Your task to perform on an android device: add a label to a message in the gmail app Image 0: 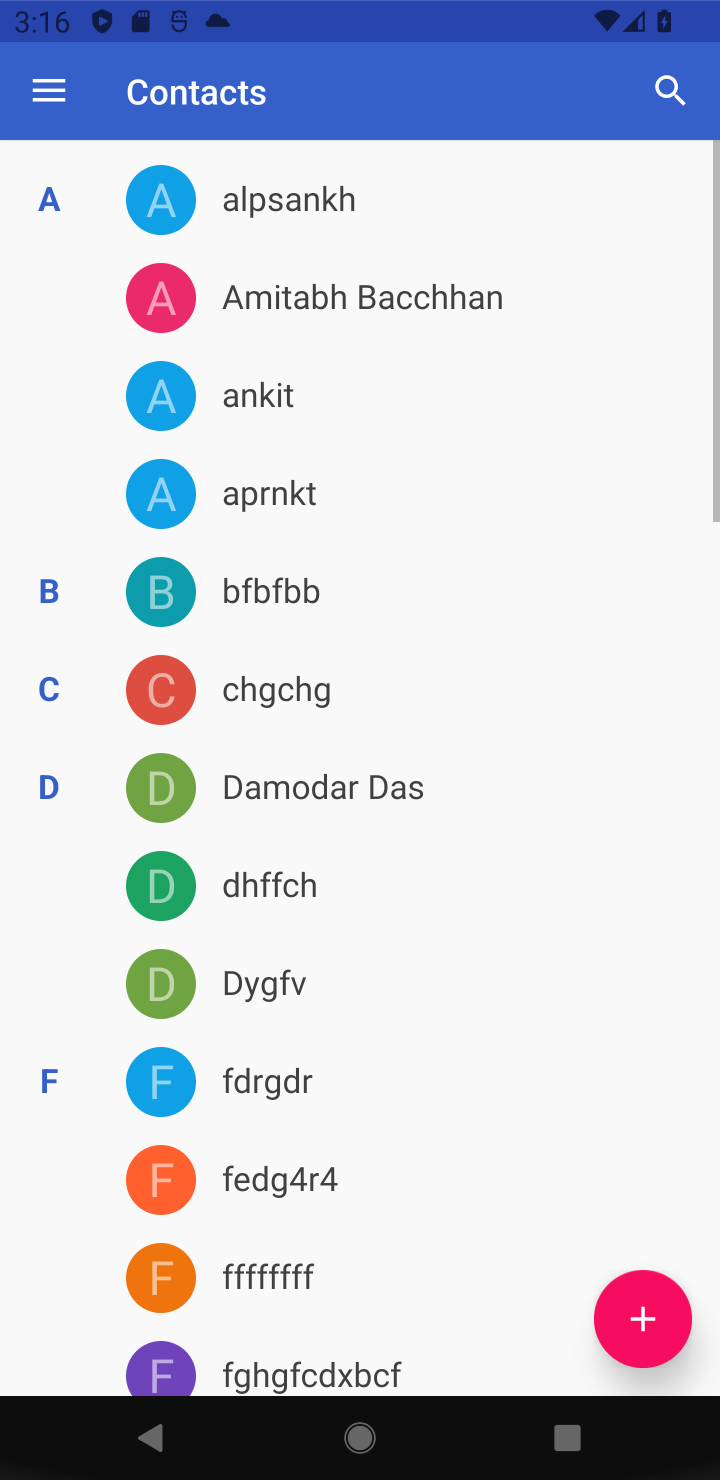
Step 0: press back button
Your task to perform on an android device: add a label to a message in the gmail app Image 1: 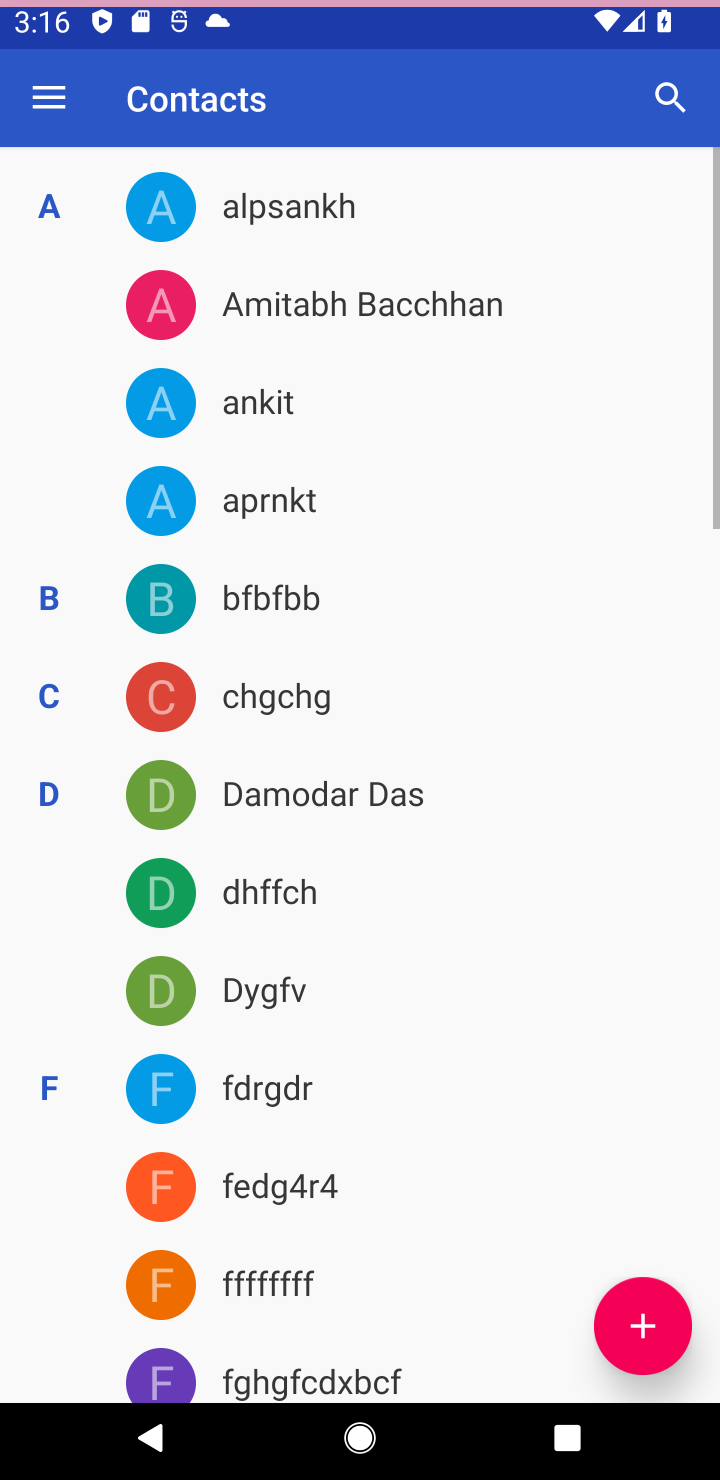
Step 1: press home button
Your task to perform on an android device: add a label to a message in the gmail app Image 2: 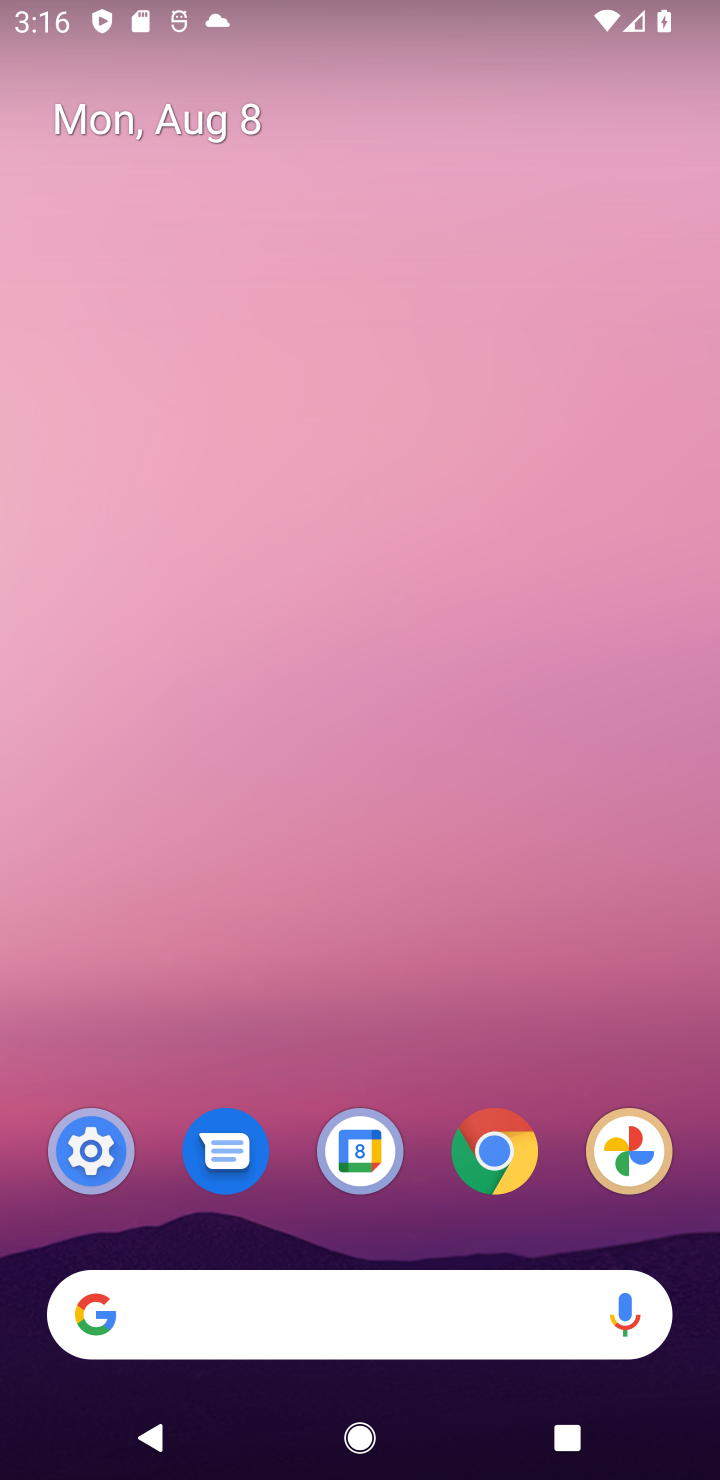
Step 2: drag from (374, 1059) to (374, 248)
Your task to perform on an android device: add a label to a message in the gmail app Image 3: 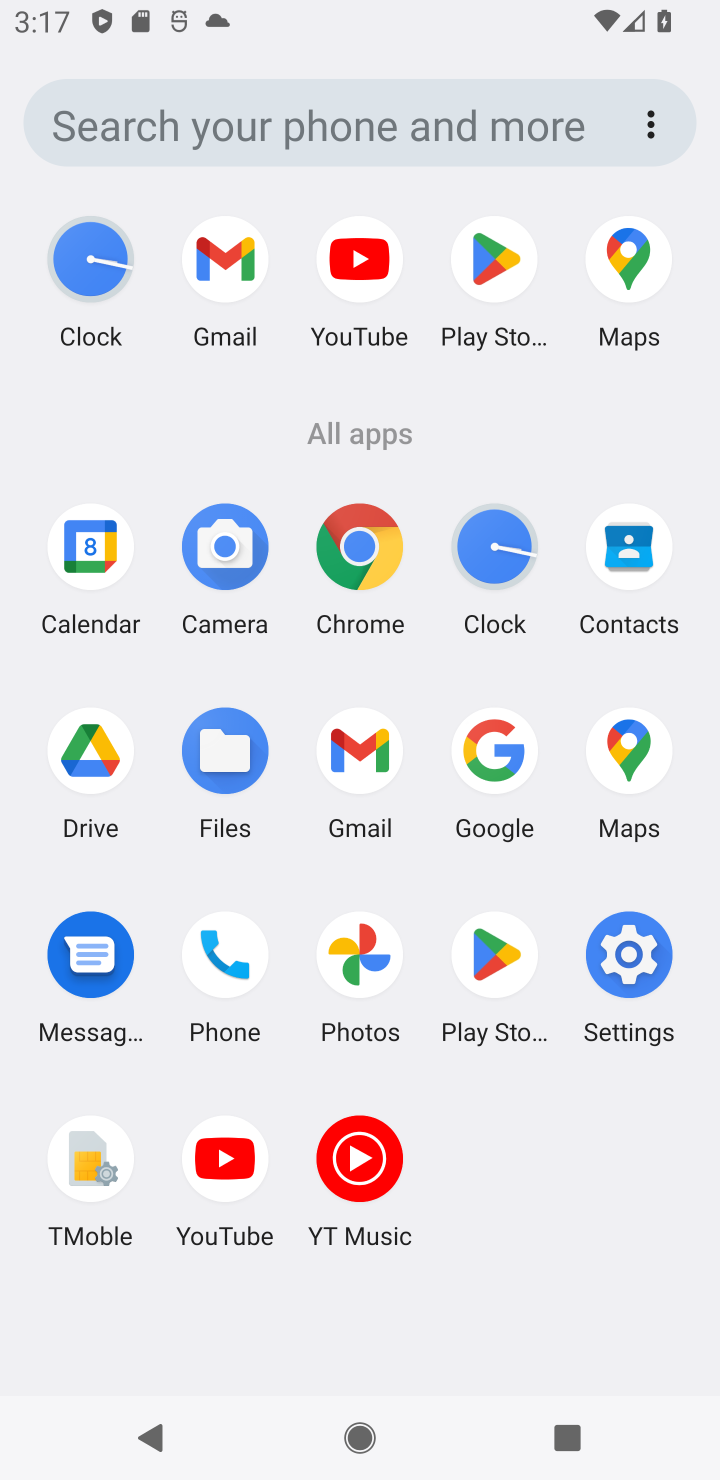
Step 3: click (239, 288)
Your task to perform on an android device: add a label to a message in the gmail app Image 4: 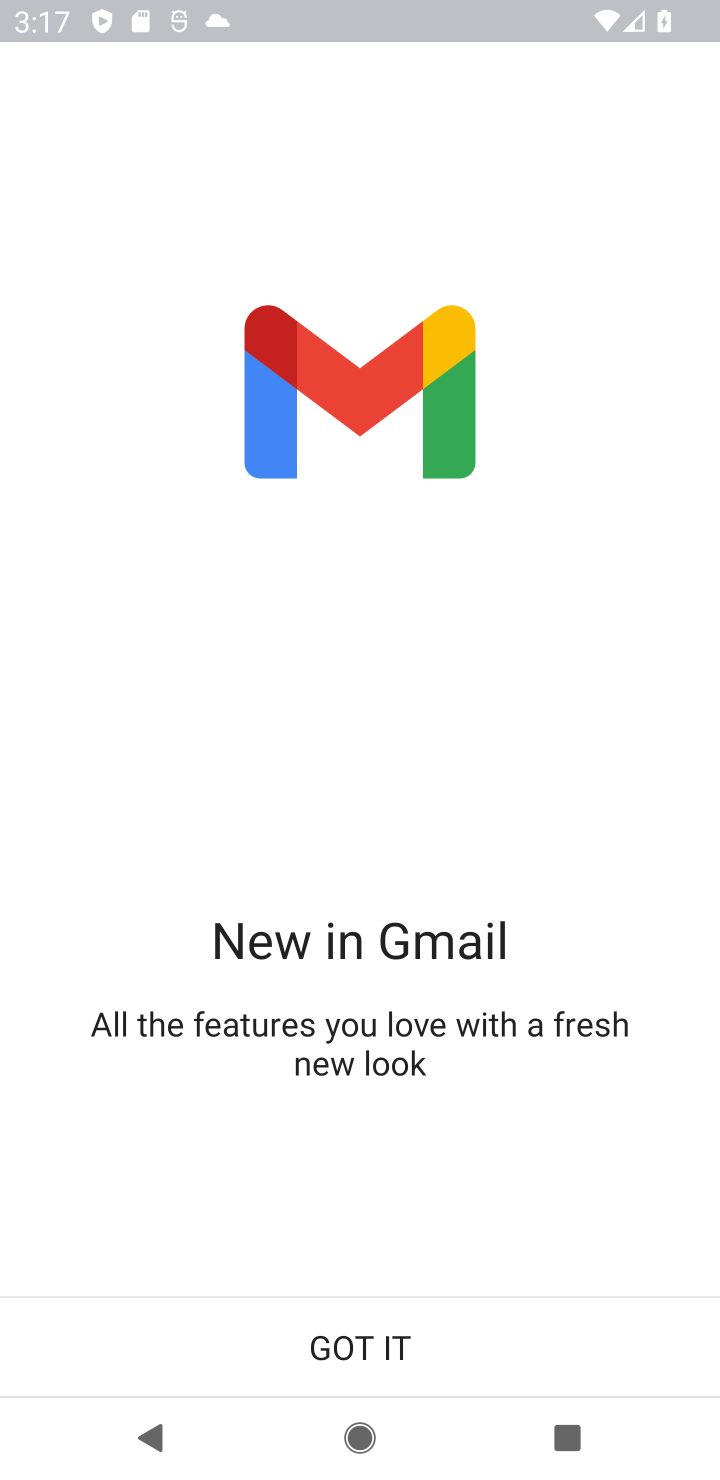
Step 4: click (480, 1322)
Your task to perform on an android device: add a label to a message in the gmail app Image 5: 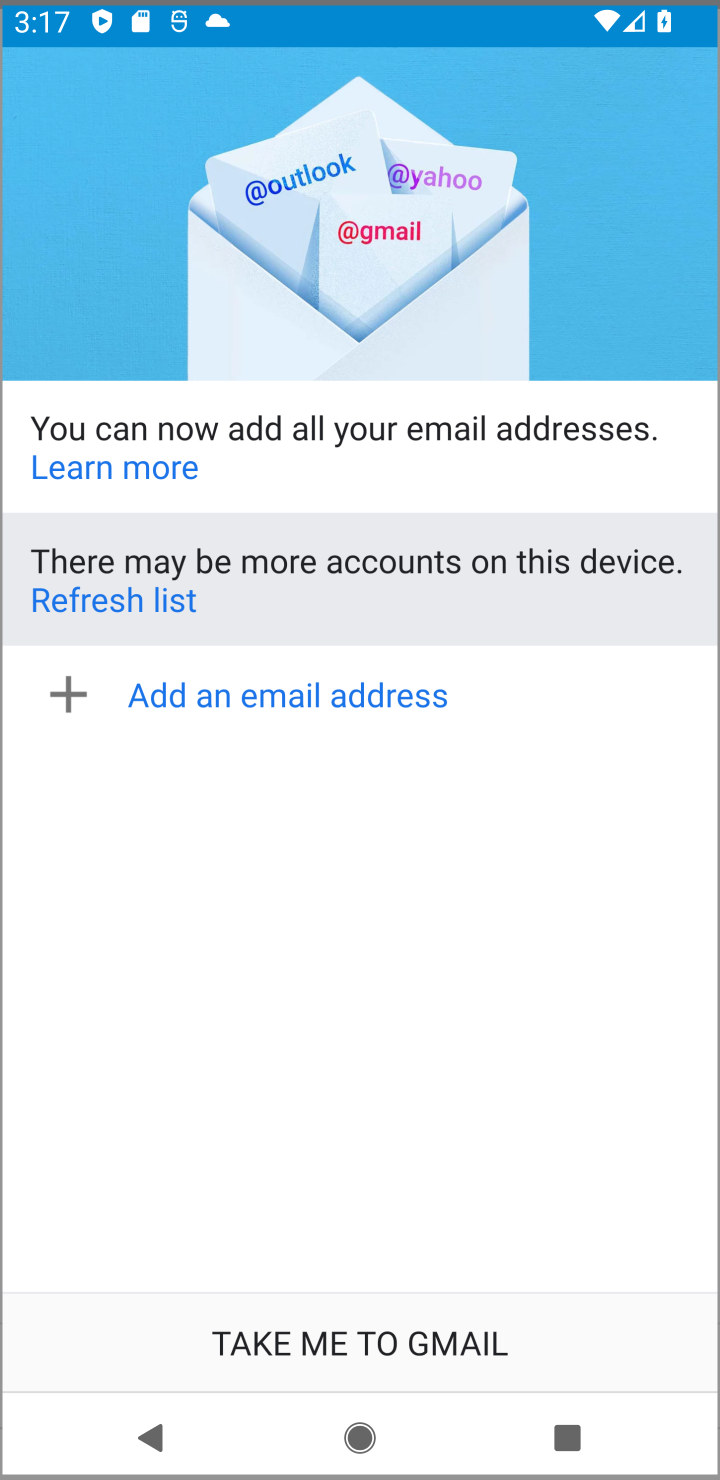
Step 5: click (480, 1322)
Your task to perform on an android device: add a label to a message in the gmail app Image 6: 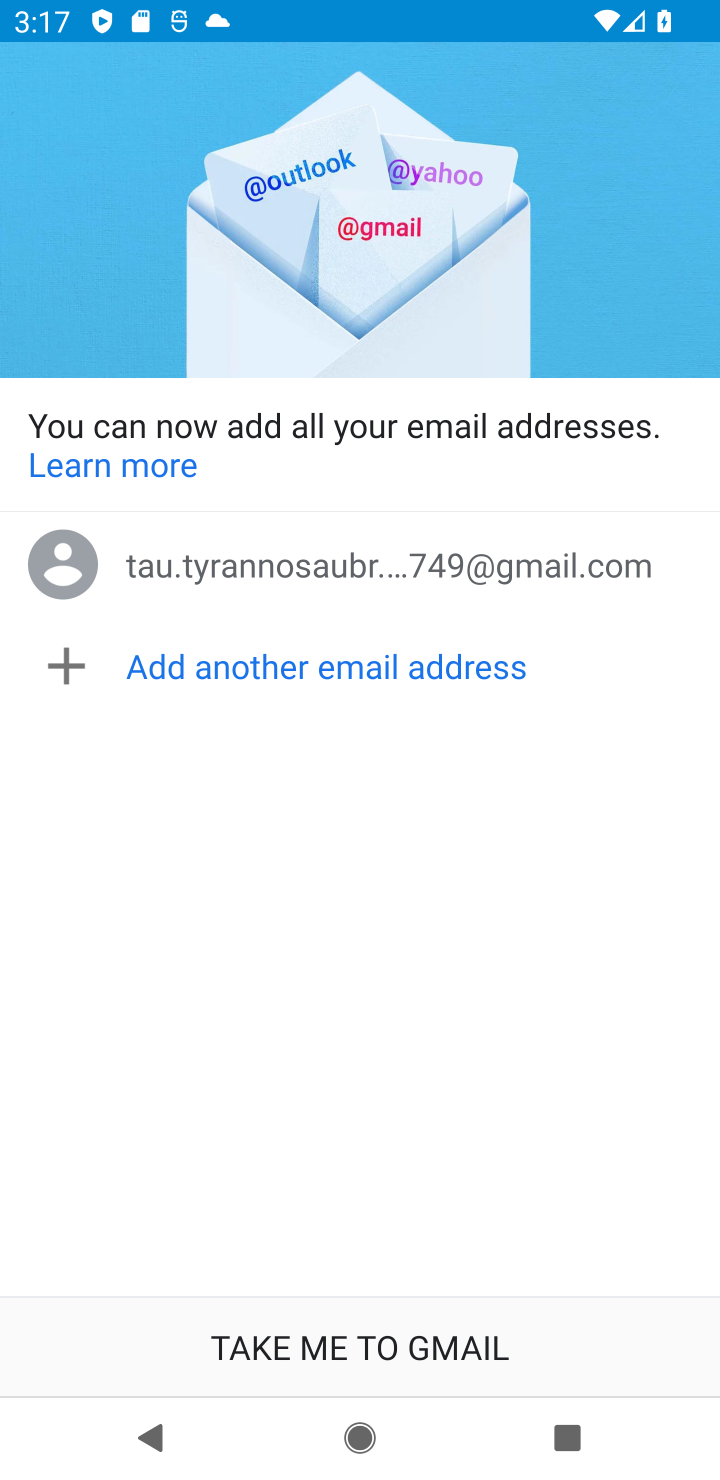
Step 6: click (540, 1322)
Your task to perform on an android device: add a label to a message in the gmail app Image 7: 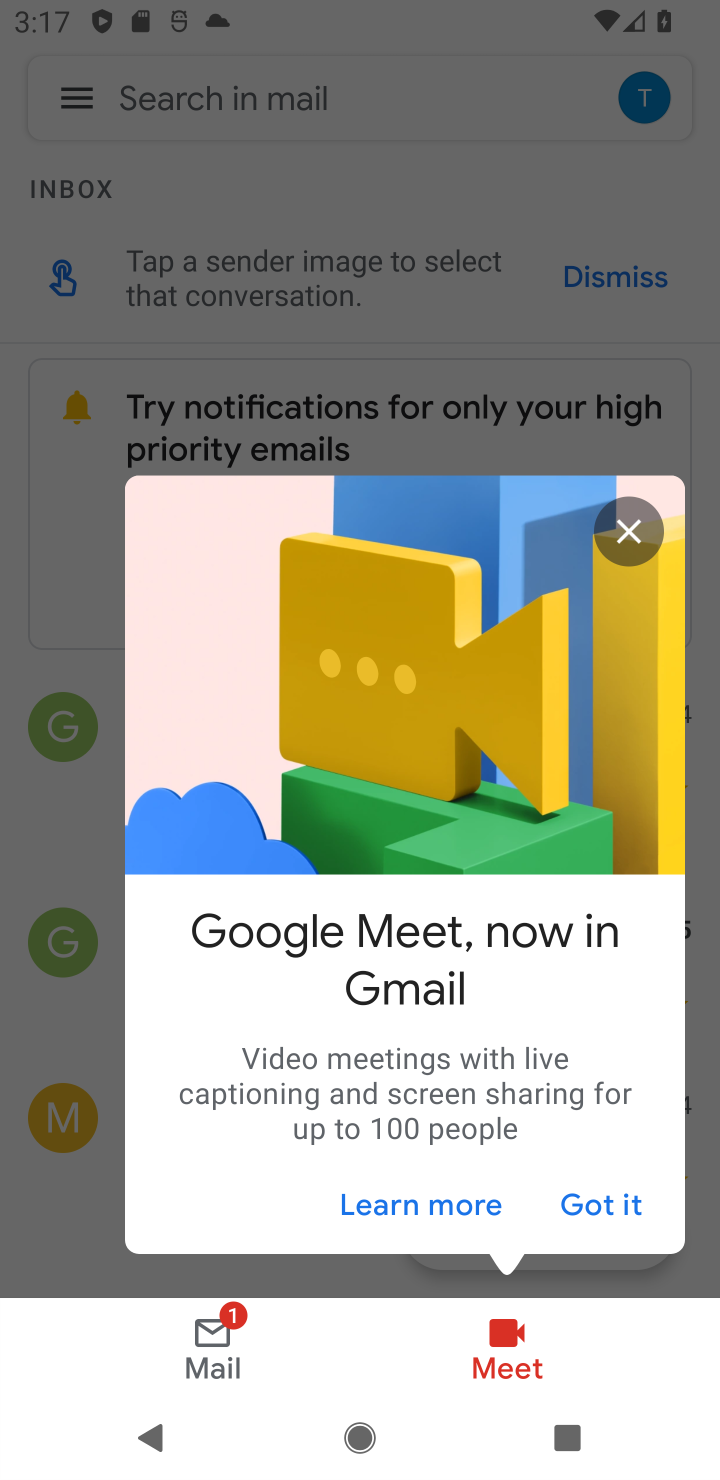
Step 7: click (599, 1205)
Your task to perform on an android device: add a label to a message in the gmail app Image 8: 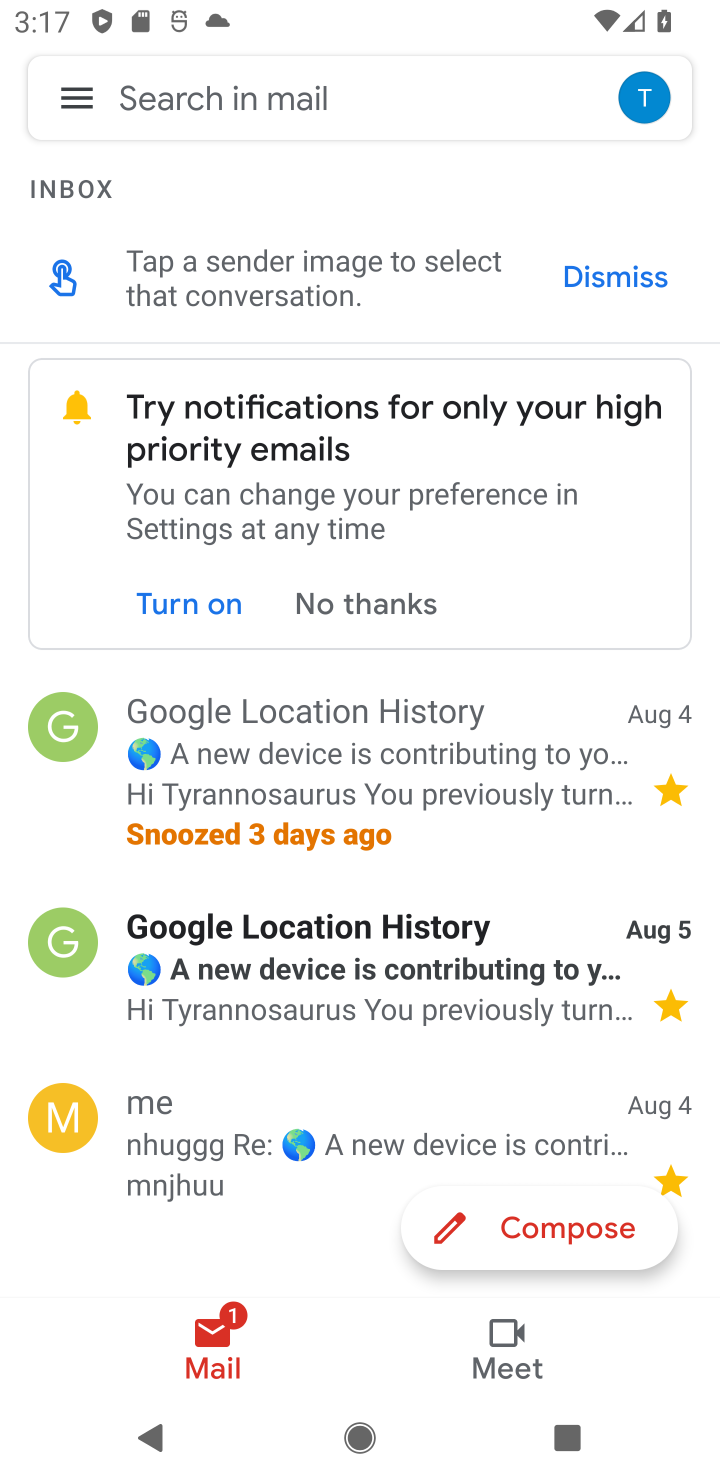
Step 8: click (314, 717)
Your task to perform on an android device: add a label to a message in the gmail app Image 9: 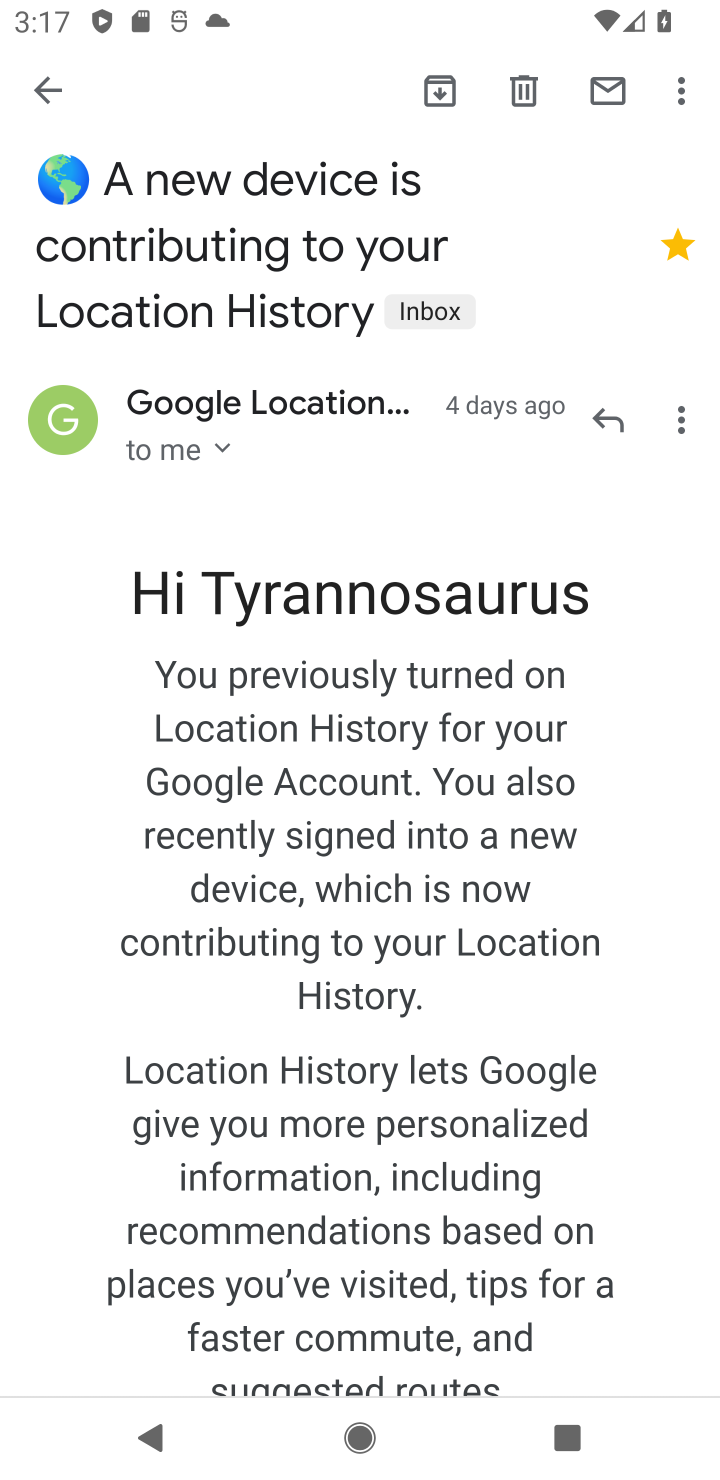
Step 9: click (672, 103)
Your task to perform on an android device: add a label to a message in the gmail app Image 10: 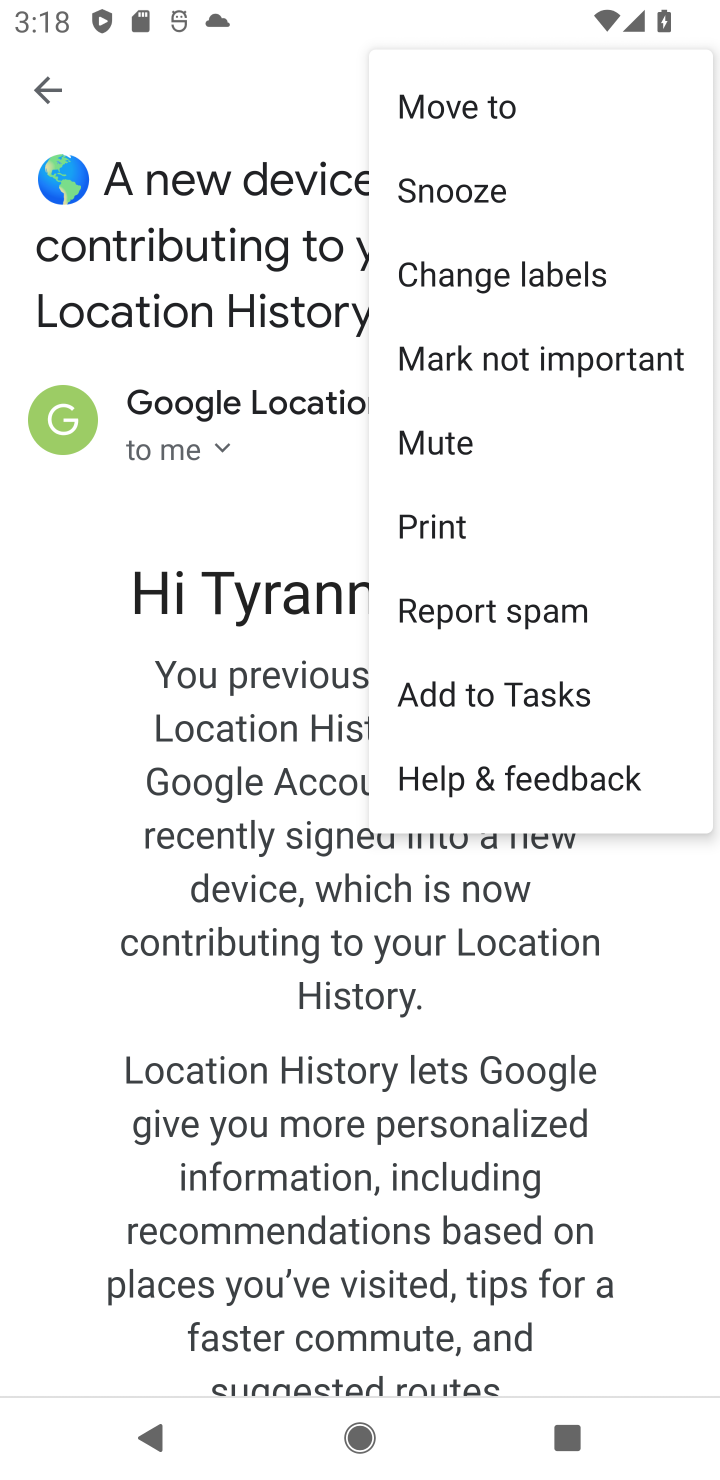
Step 10: click (532, 286)
Your task to perform on an android device: add a label to a message in the gmail app Image 11: 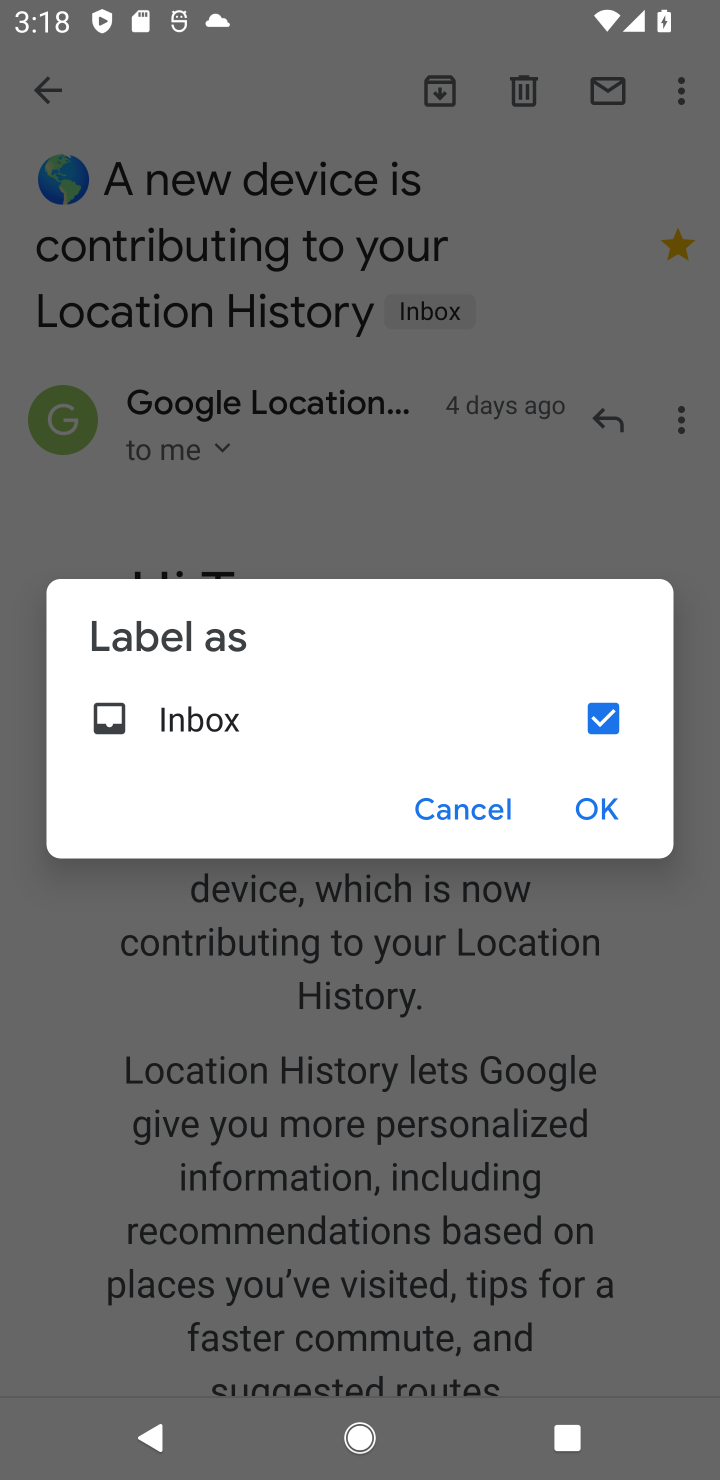
Step 11: click (580, 799)
Your task to perform on an android device: add a label to a message in the gmail app Image 12: 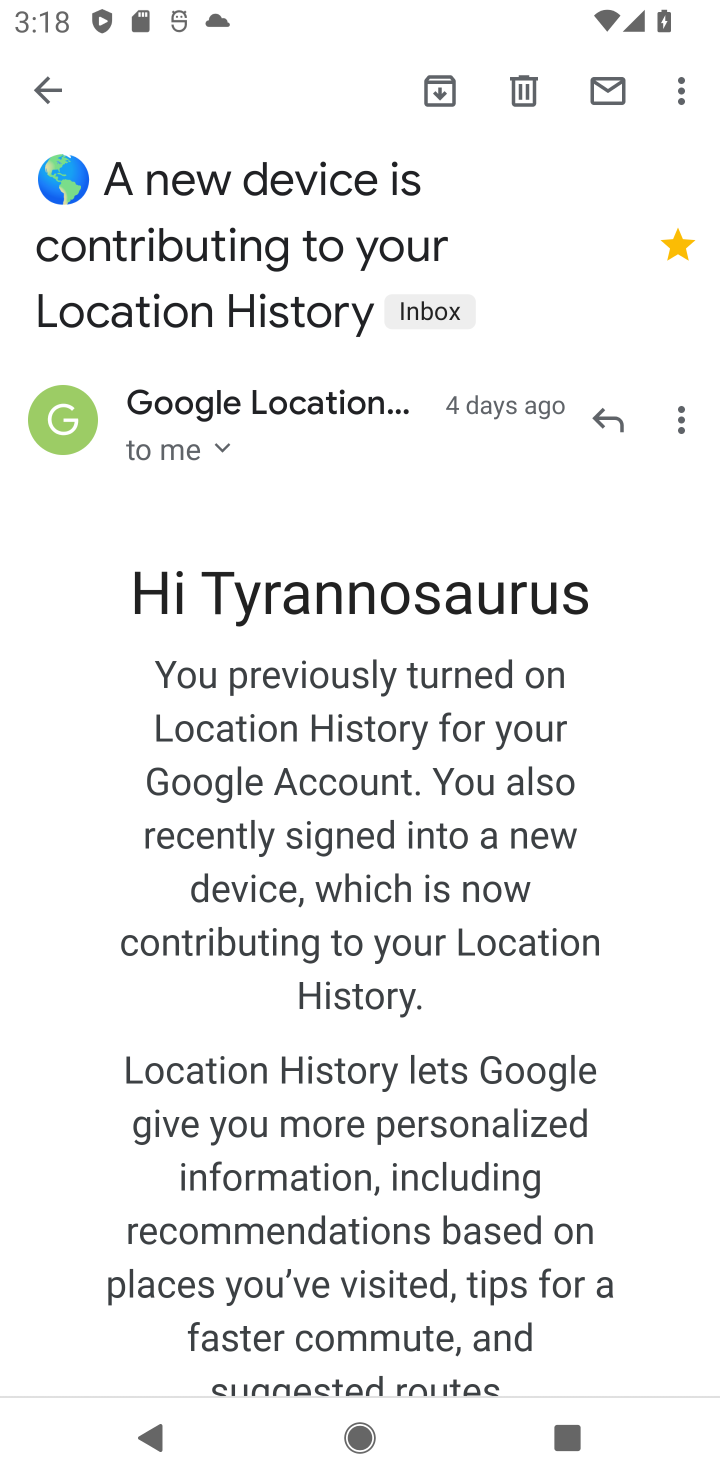
Step 12: task complete